Your task to perform on an android device: turn on airplane mode Image 0: 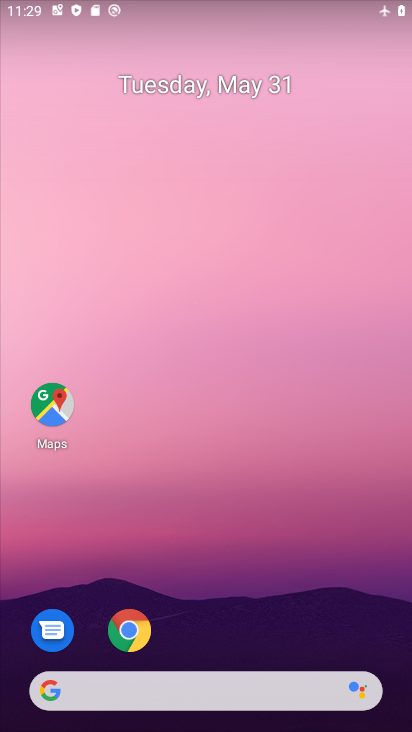
Step 0: click (253, 493)
Your task to perform on an android device: turn on airplane mode Image 1: 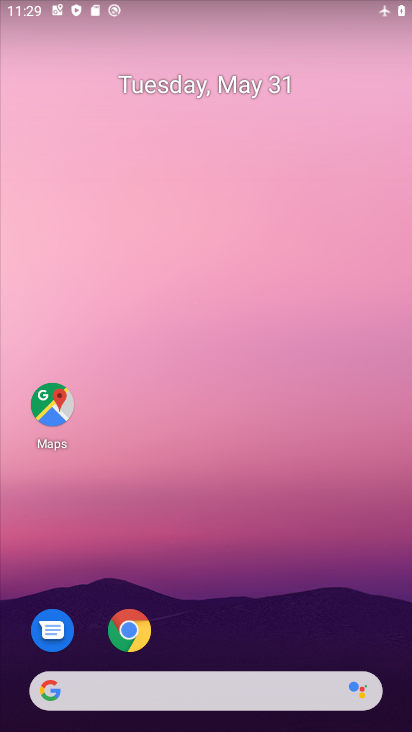
Step 1: drag from (156, 675) to (261, 41)
Your task to perform on an android device: turn on airplane mode Image 2: 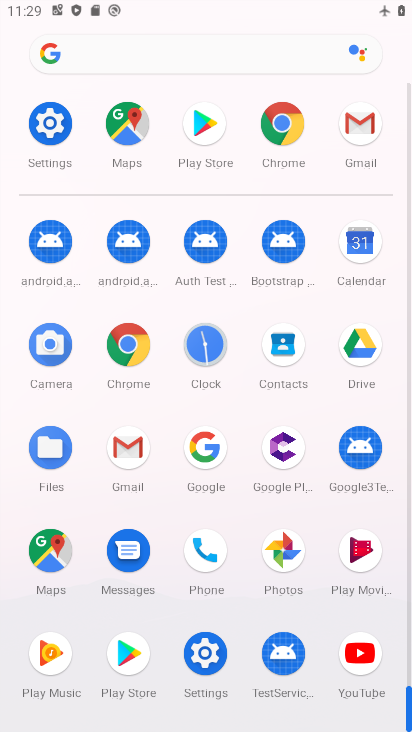
Step 2: click (57, 141)
Your task to perform on an android device: turn on airplane mode Image 3: 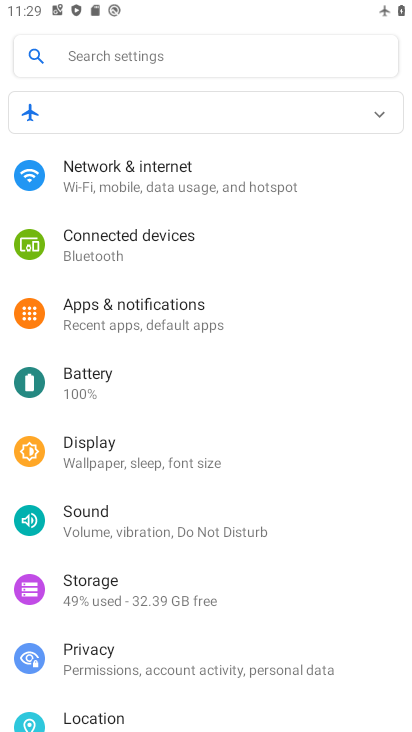
Step 3: click (208, 183)
Your task to perform on an android device: turn on airplane mode Image 4: 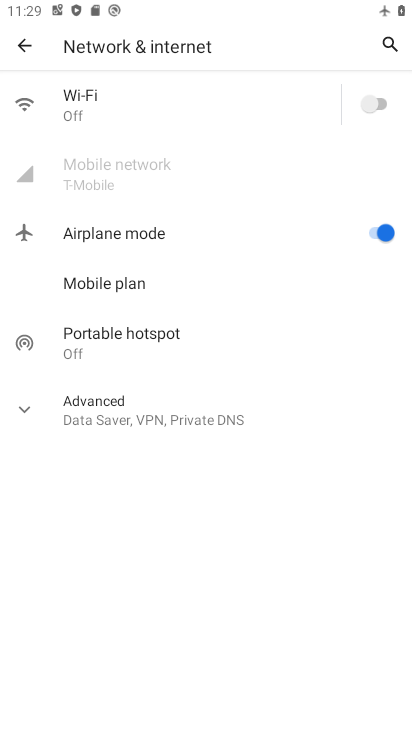
Step 4: task complete